Your task to perform on an android device: open the mobile data screen to see how much data has been used Image 0: 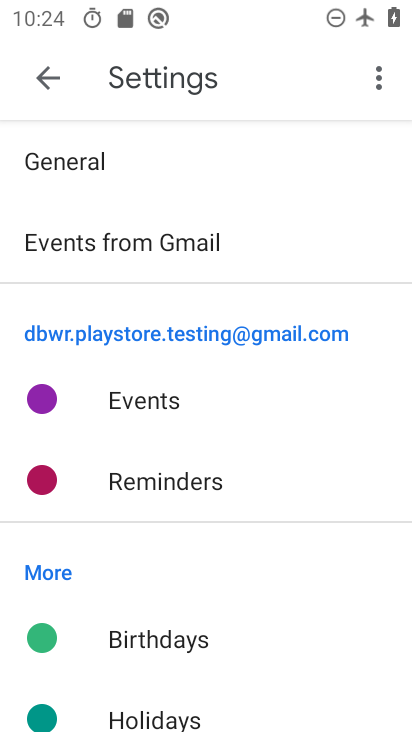
Step 0: press home button
Your task to perform on an android device: open the mobile data screen to see how much data has been used Image 1: 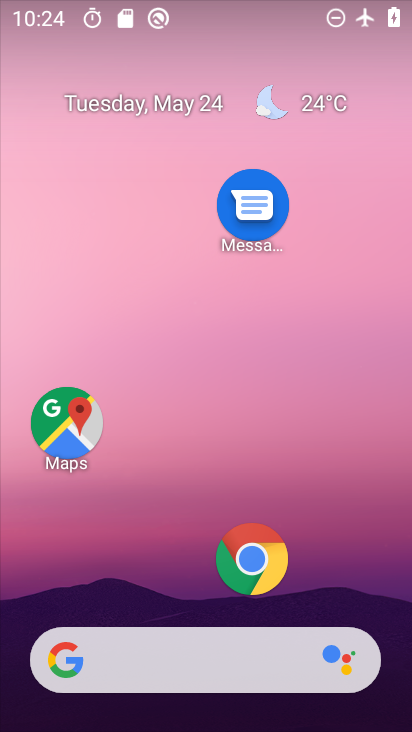
Step 1: drag from (180, 594) to (184, 174)
Your task to perform on an android device: open the mobile data screen to see how much data has been used Image 2: 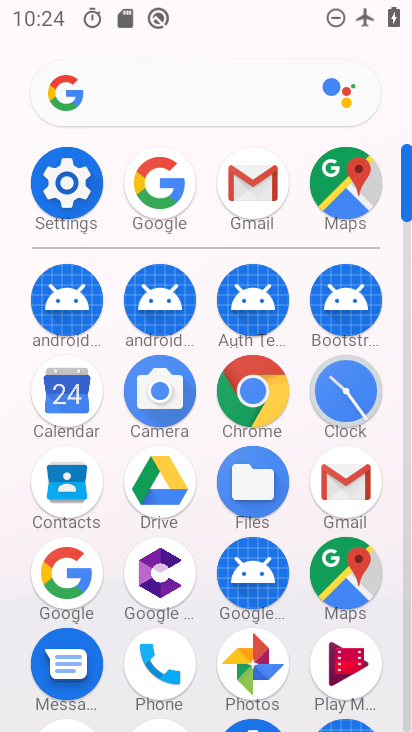
Step 2: click (91, 198)
Your task to perform on an android device: open the mobile data screen to see how much data has been used Image 3: 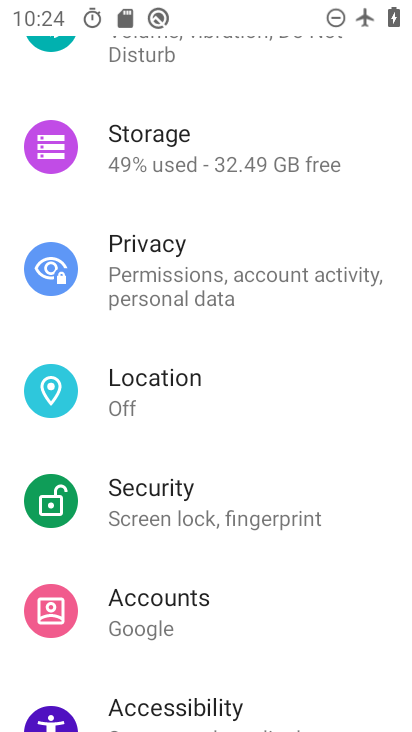
Step 3: drag from (193, 192) to (214, 466)
Your task to perform on an android device: open the mobile data screen to see how much data has been used Image 4: 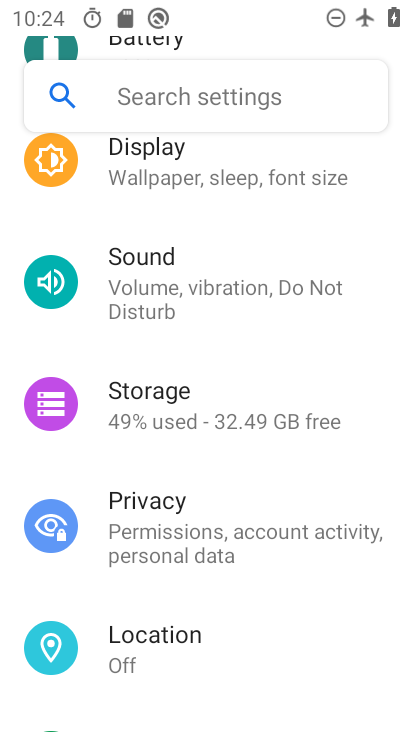
Step 4: drag from (214, 186) to (235, 447)
Your task to perform on an android device: open the mobile data screen to see how much data has been used Image 5: 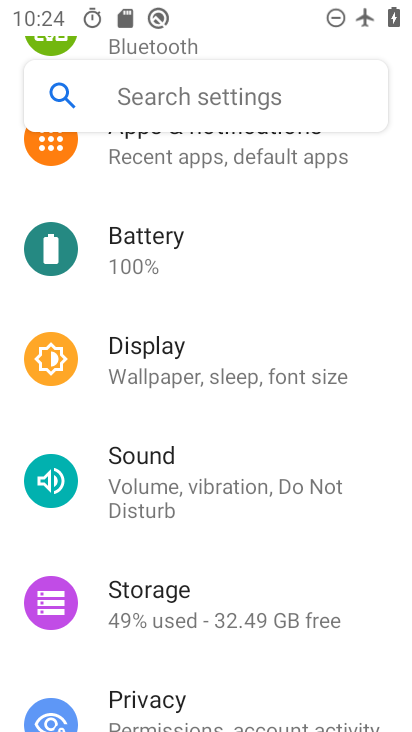
Step 5: drag from (220, 206) to (232, 458)
Your task to perform on an android device: open the mobile data screen to see how much data has been used Image 6: 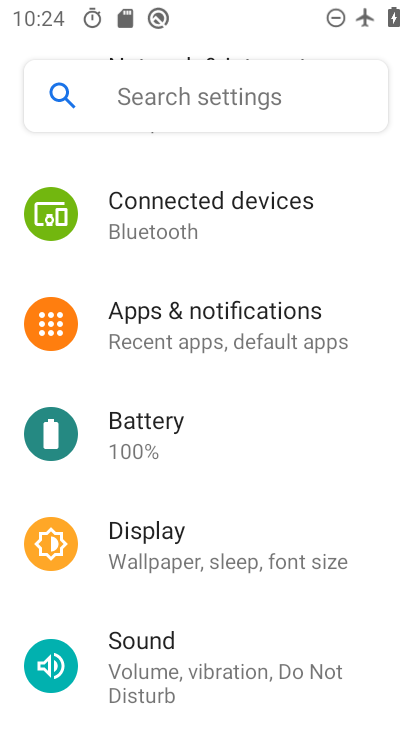
Step 6: drag from (244, 264) to (281, 583)
Your task to perform on an android device: open the mobile data screen to see how much data has been used Image 7: 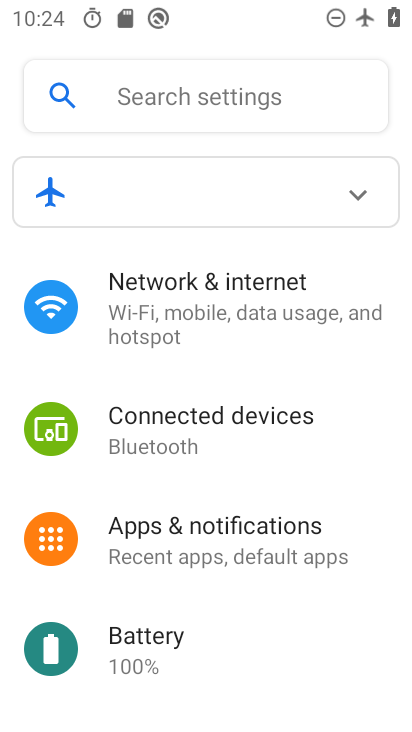
Step 7: click (220, 329)
Your task to perform on an android device: open the mobile data screen to see how much data has been used Image 8: 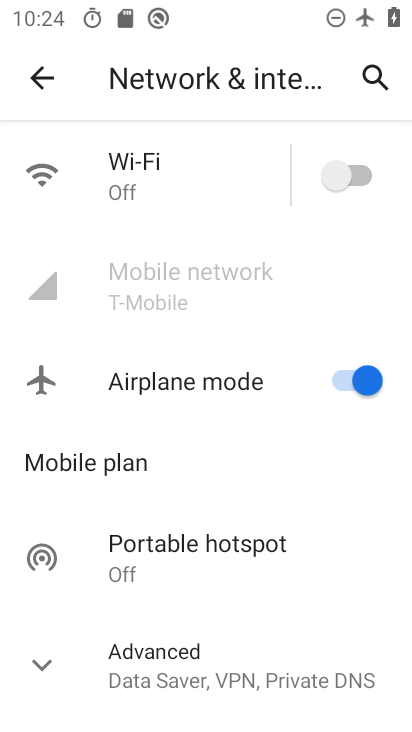
Step 8: click (215, 301)
Your task to perform on an android device: open the mobile data screen to see how much data has been used Image 9: 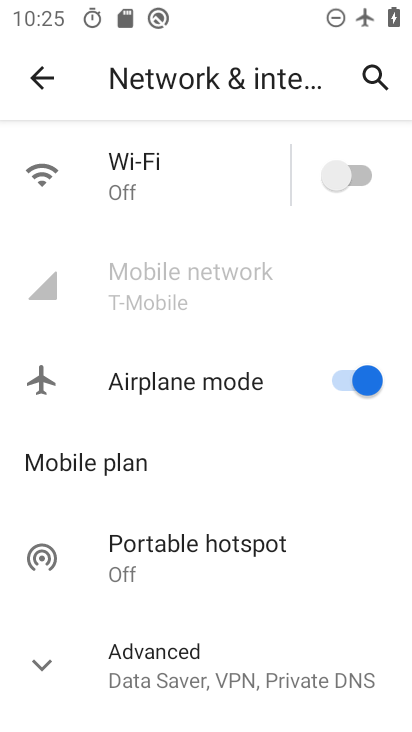
Step 9: task complete